Your task to perform on an android device: toggle priority inbox in the gmail app Image 0: 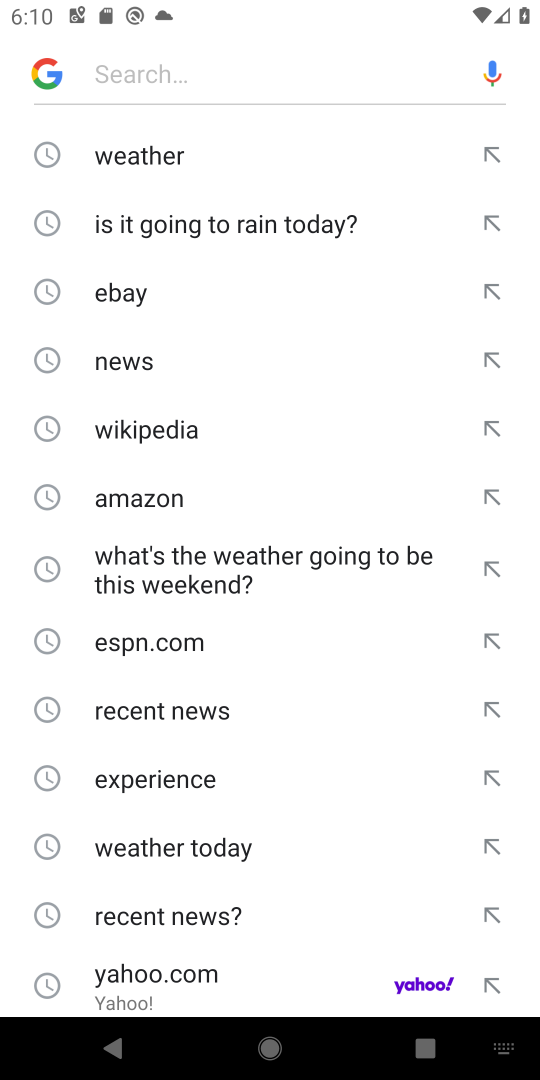
Step 0: press home button
Your task to perform on an android device: toggle priority inbox in the gmail app Image 1: 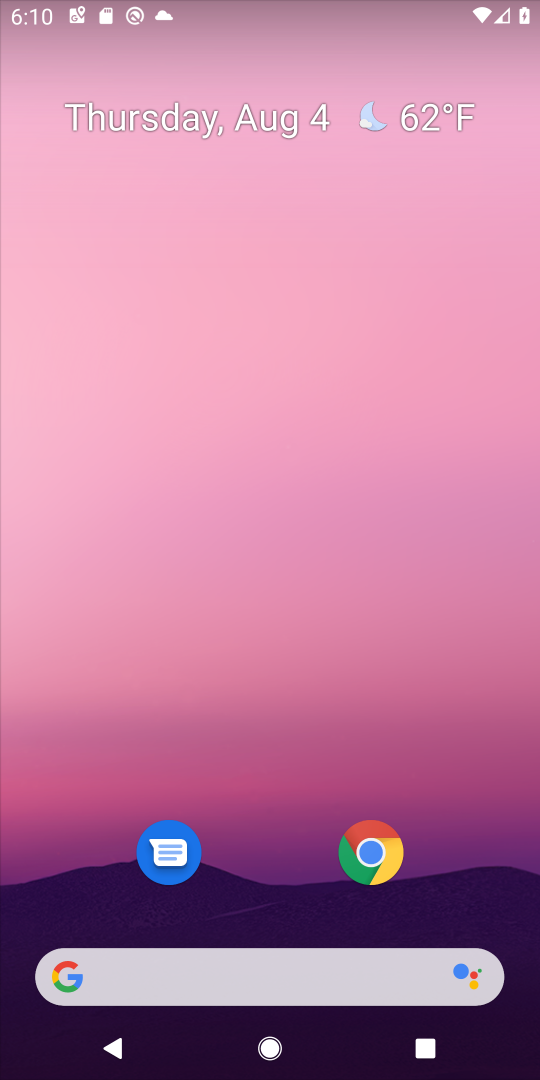
Step 1: drag from (272, 855) to (265, 14)
Your task to perform on an android device: toggle priority inbox in the gmail app Image 2: 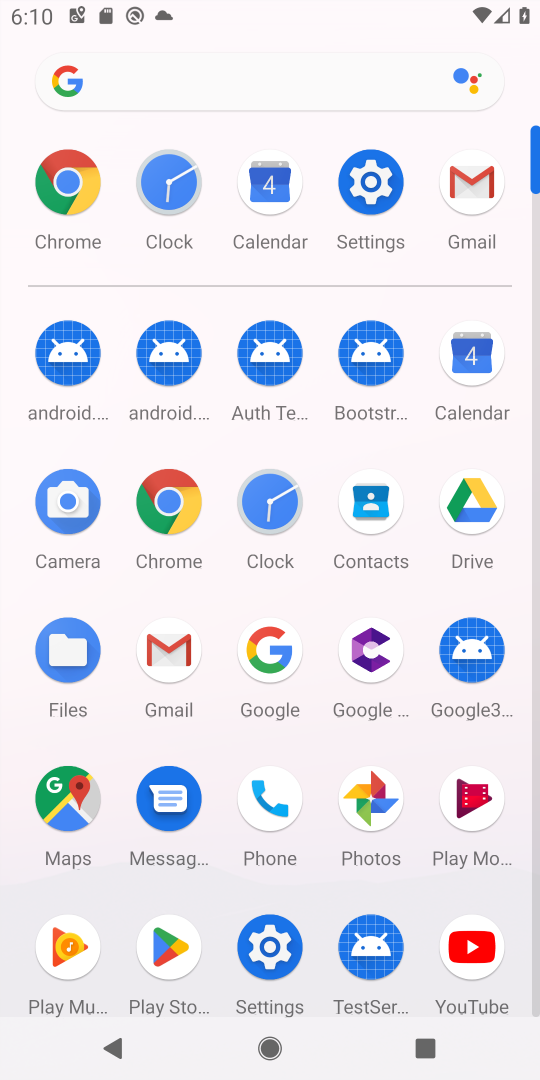
Step 2: click (165, 656)
Your task to perform on an android device: toggle priority inbox in the gmail app Image 3: 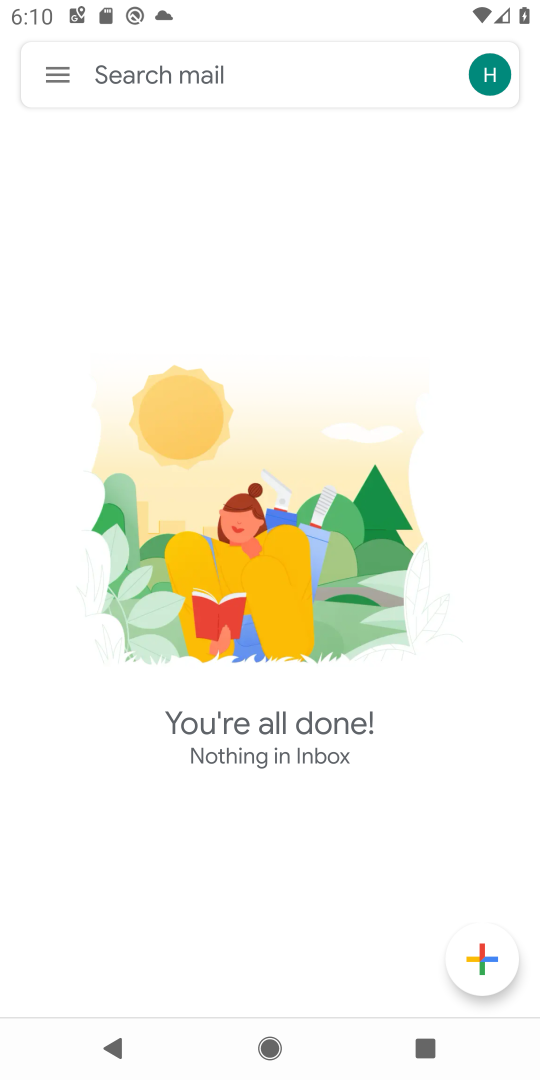
Step 3: click (55, 78)
Your task to perform on an android device: toggle priority inbox in the gmail app Image 4: 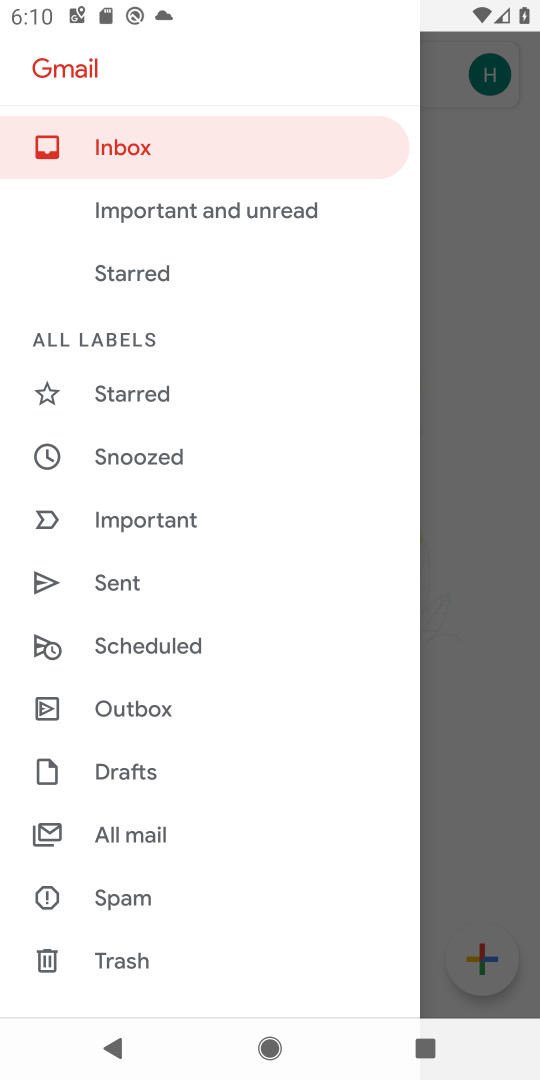
Step 4: drag from (143, 925) to (143, 434)
Your task to perform on an android device: toggle priority inbox in the gmail app Image 5: 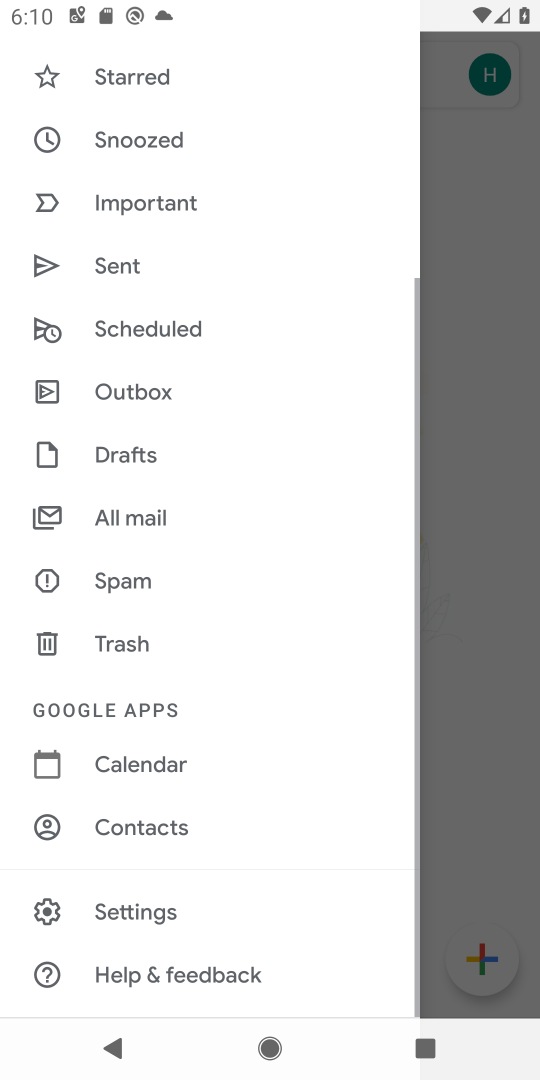
Step 5: click (140, 908)
Your task to perform on an android device: toggle priority inbox in the gmail app Image 6: 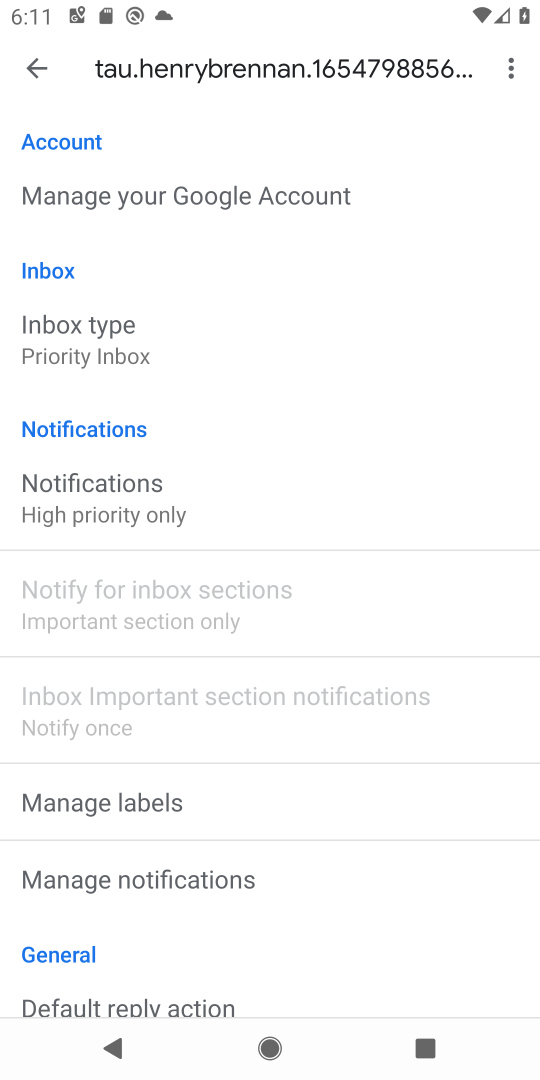
Step 6: click (68, 344)
Your task to perform on an android device: toggle priority inbox in the gmail app Image 7: 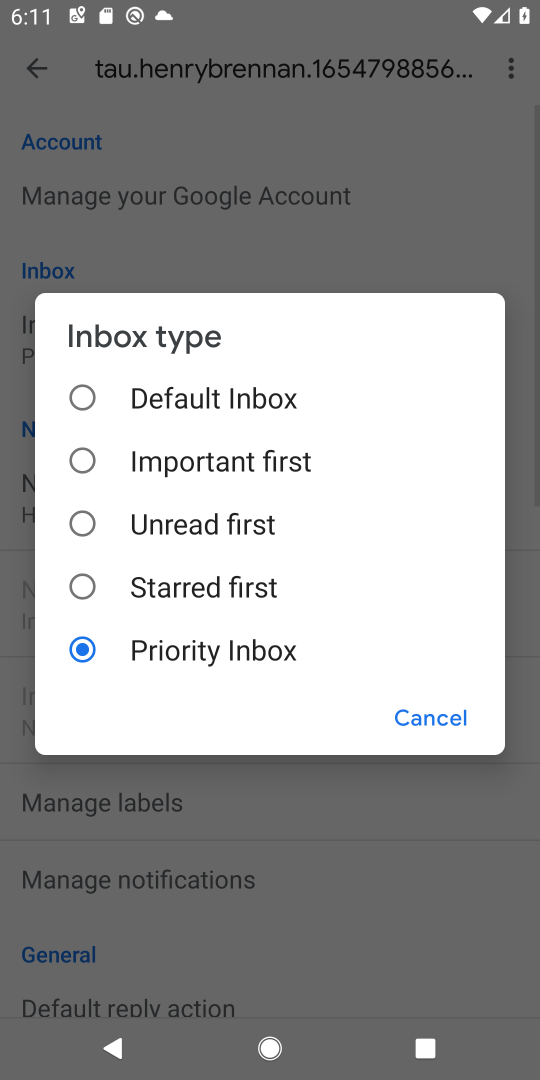
Step 7: click (78, 408)
Your task to perform on an android device: toggle priority inbox in the gmail app Image 8: 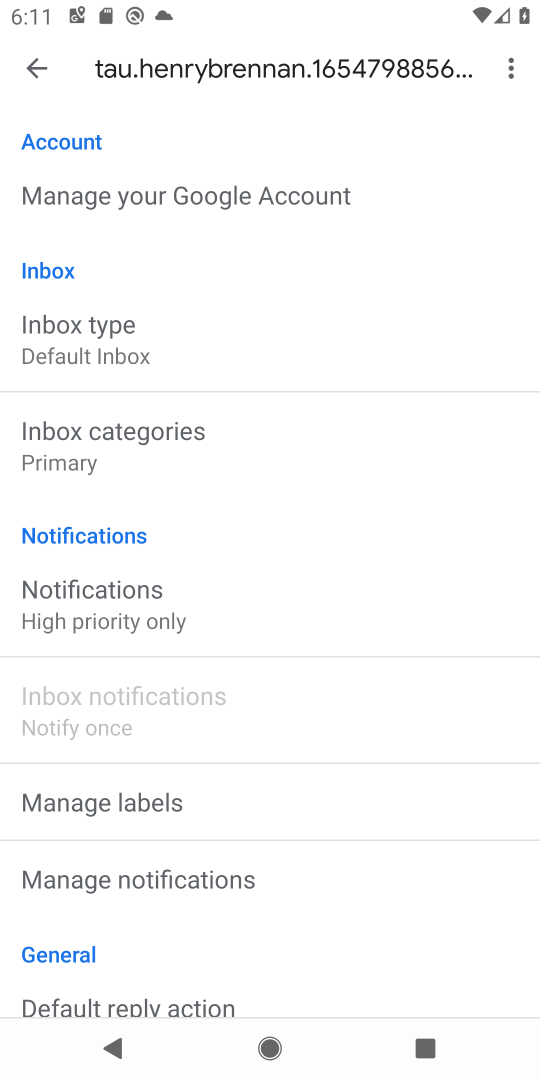
Step 8: task complete